Your task to perform on an android device: Turn off the flashlight Image 0: 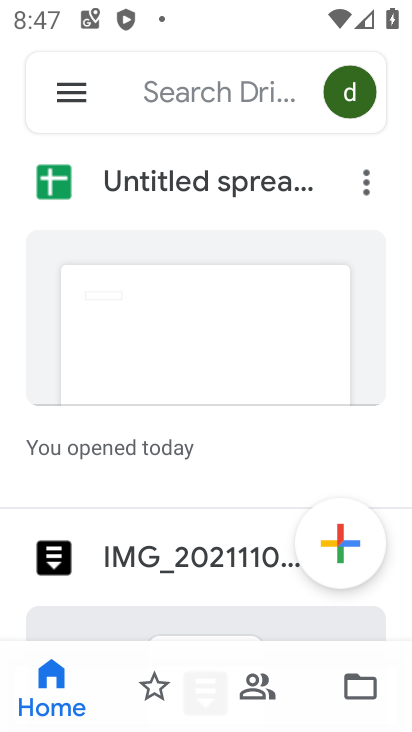
Step 0: press home button
Your task to perform on an android device: Turn off the flashlight Image 1: 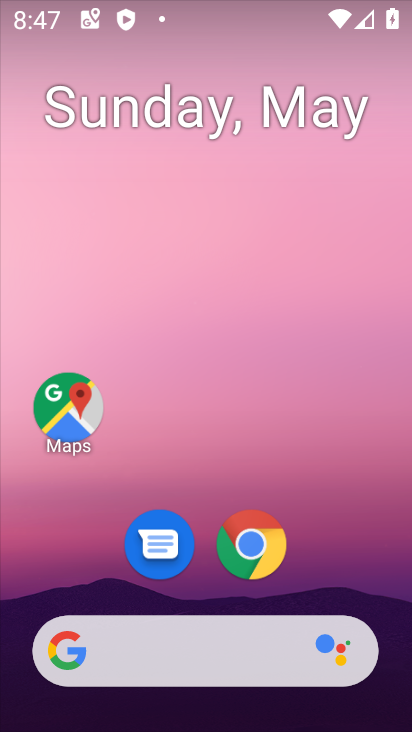
Step 1: drag from (371, 559) to (303, 102)
Your task to perform on an android device: Turn off the flashlight Image 2: 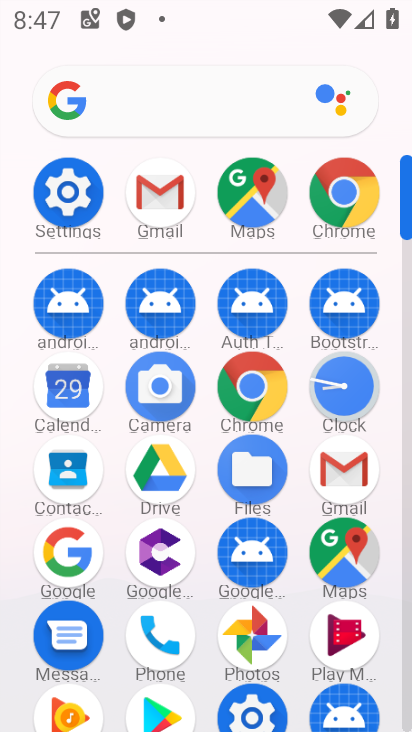
Step 2: click (54, 197)
Your task to perform on an android device: Turn off the flashlight Image 3: 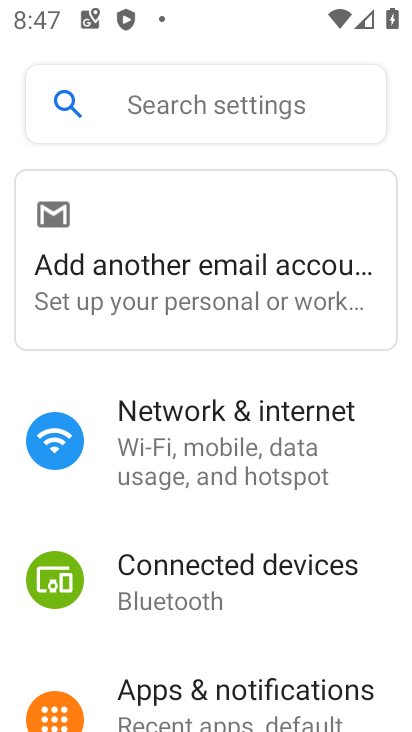
Step 3: task complete